Your task to perform on an android device: Open sound settings Image 0: 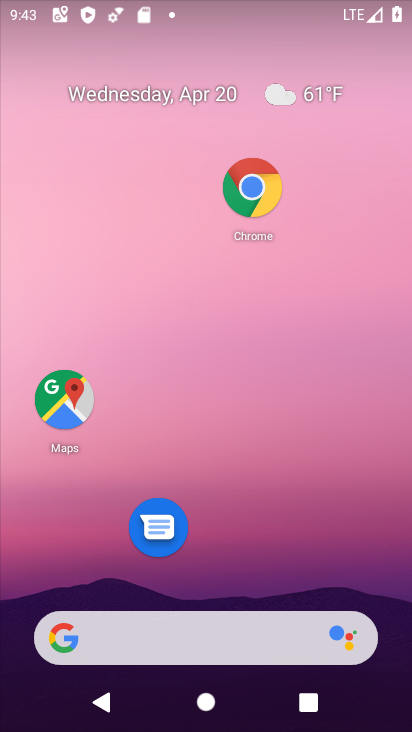
Step 0: drag from (224, 566) to (183, 147)
Your task to perform on an android device: Open sound settings Image 1: 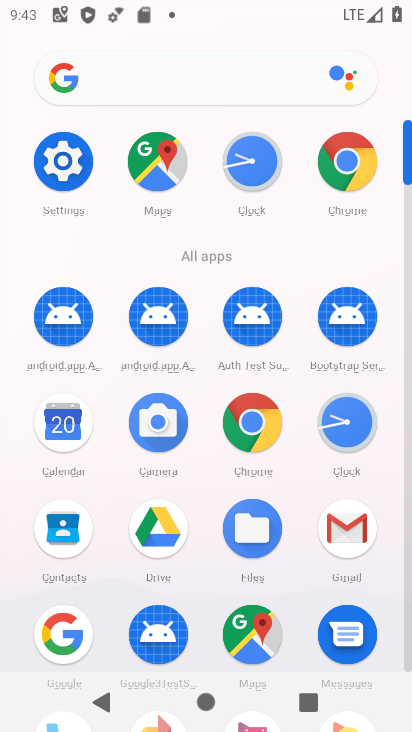
Step 1: click (56, 172)
Your task to perform on an android device: Open sound settings Image 2: 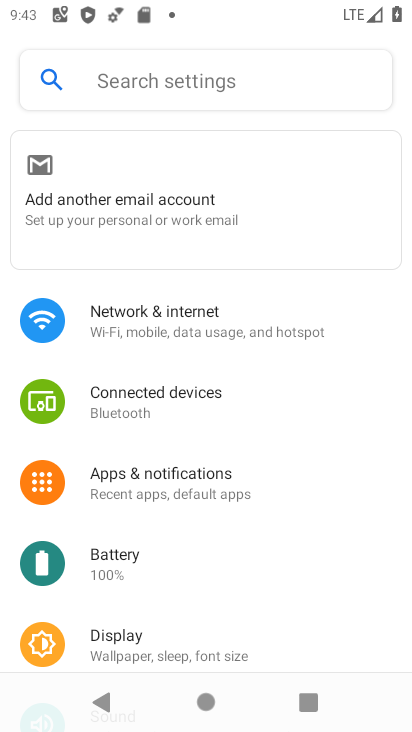
Step 2: drag from (233, 548) to (181, 57)
Your task to perform on an android device: Open sound settings Image 3: 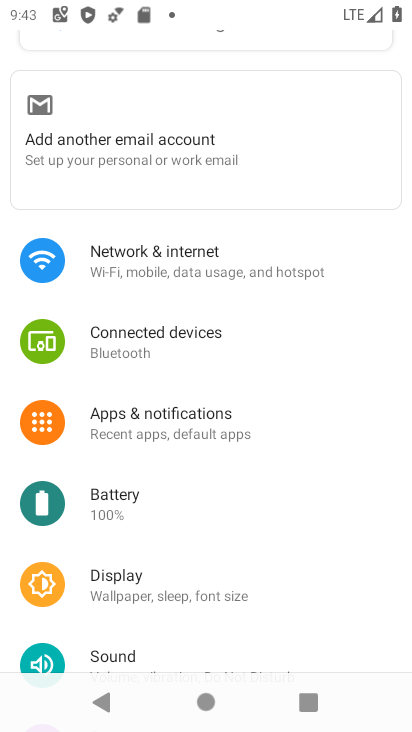
Step 3: click (110, 657)
Your task to perform on an android device: Open sound settings Image 4: 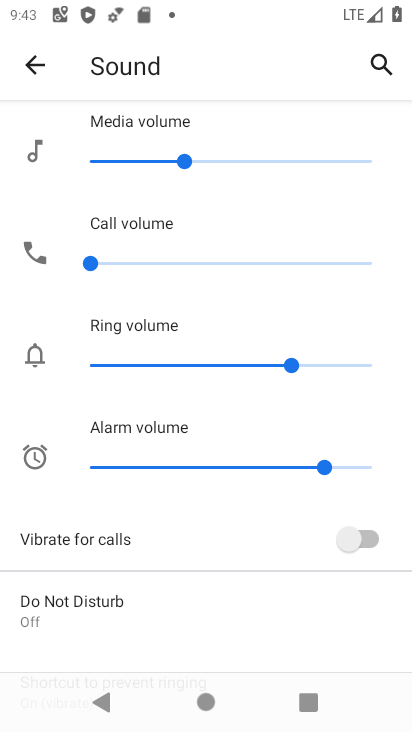
Step 4: task complete